Your task to perform on an android device: Go to accessibility settings Image 0: 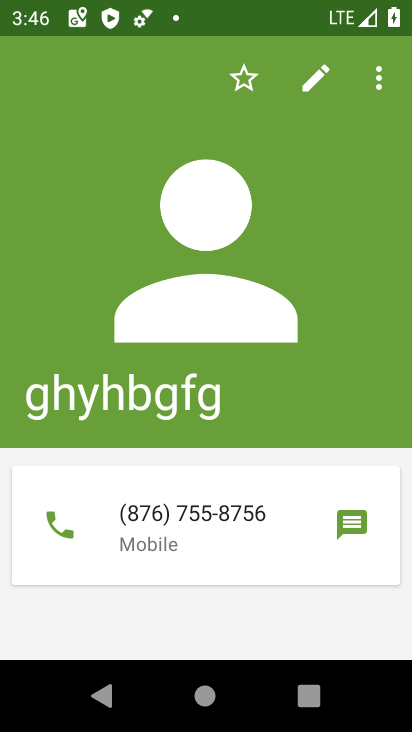
Step 0: press home button
Your task to perform on an android device: Go to accessibility settings Image 1: 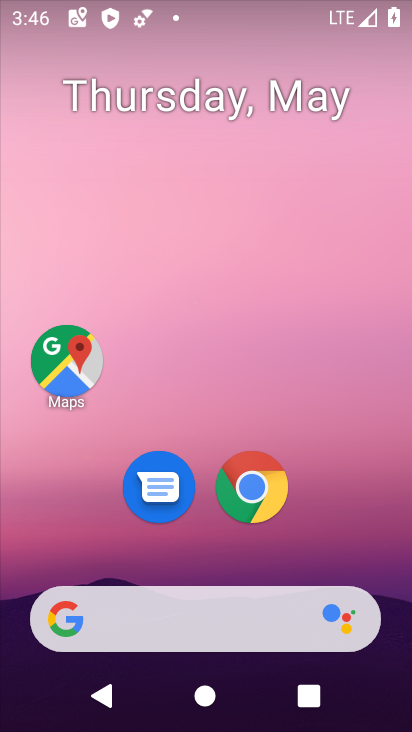
Step 1: drag from (209, 650) to (241, 203)
Your task to perform on an android device: Go to accessibility settings Image 2: 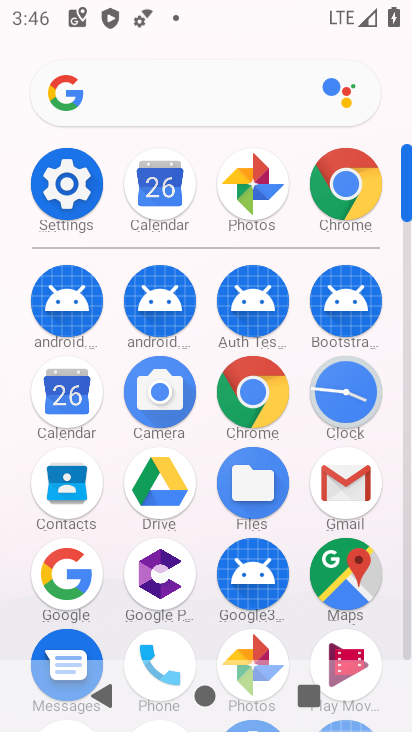
Step 2: click (73, 191)
Your task to perform on an android device: Go to accessibility settings Image 3: 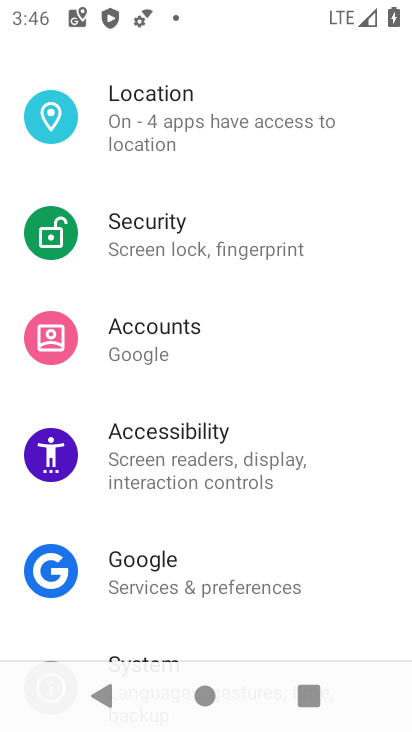
Step 3: click (177, 449)
Your task to perform on an android device: Go to accessibility settings Image 4: 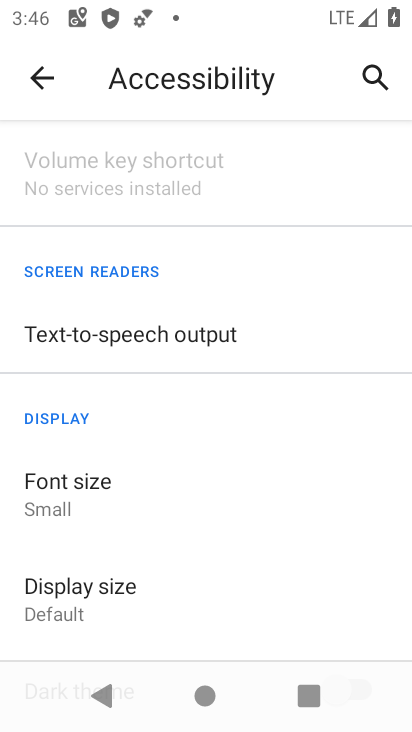
Step 4: task complete